Your task to perform on an android device: Show me the alarms in the clock app Image 0: 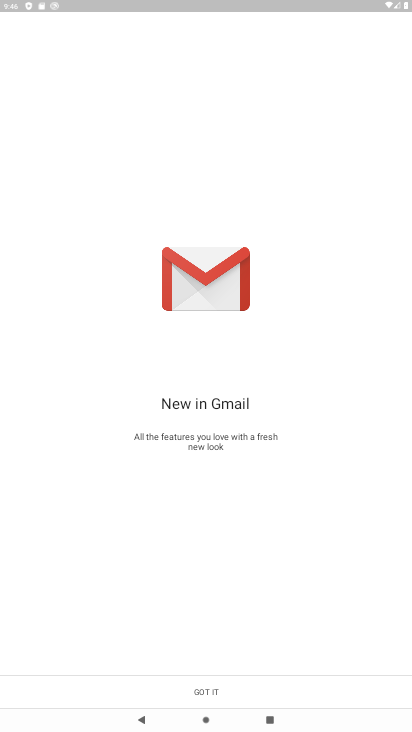
Step 0: press home button
Your task to perform on an android device: Show me the alarms in the clock app Image 1: 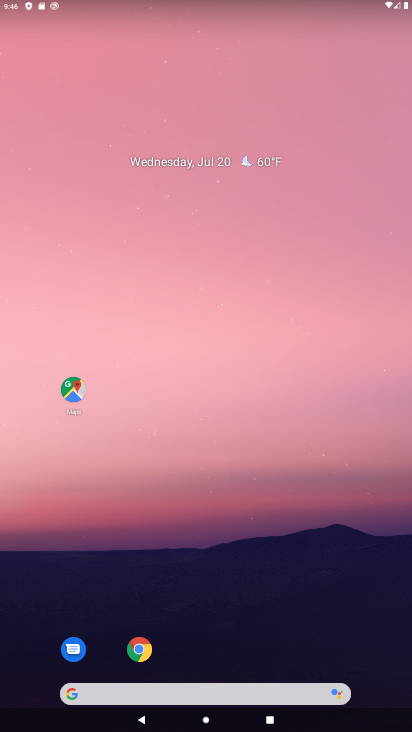
Step 1: drag from (213, 636) to (222, 129)
Your task to perform on an android device: Show me the alarms in the clock app Image 2: 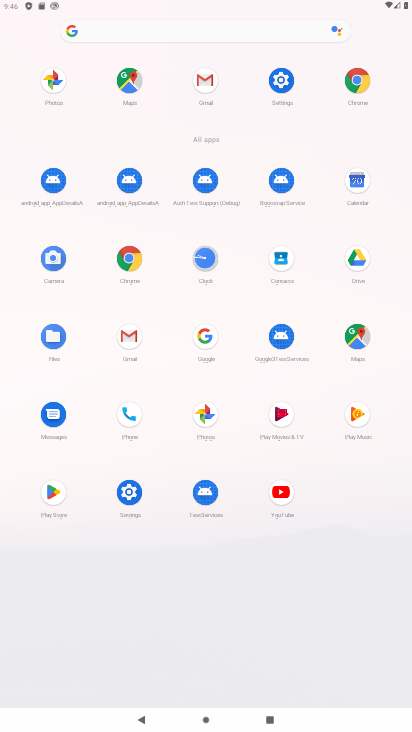
Step 2: click (207, 260)
Your task to perform on an android device: Show me the alarms in the clock app Image 3: 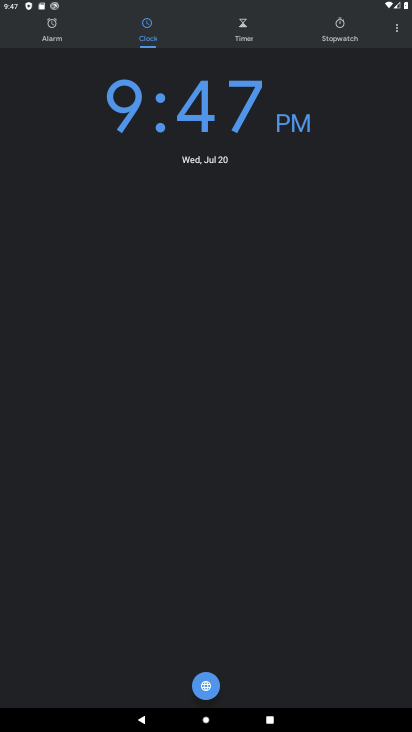
Step 3: click (64, 34)
Your task to perform on an android device: Show me the alarms in the clock app Image 4: 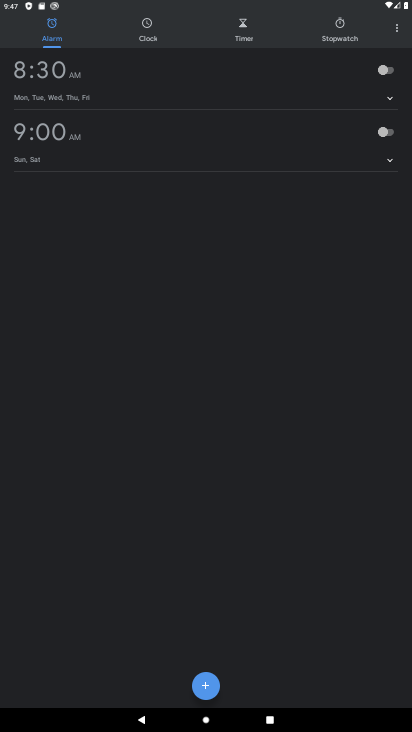
Step 4: task complete